Your task to perform on an android device: open app "Microsoft Authenticator" (install if not already installed), go to login, and select forgot password Image 0: 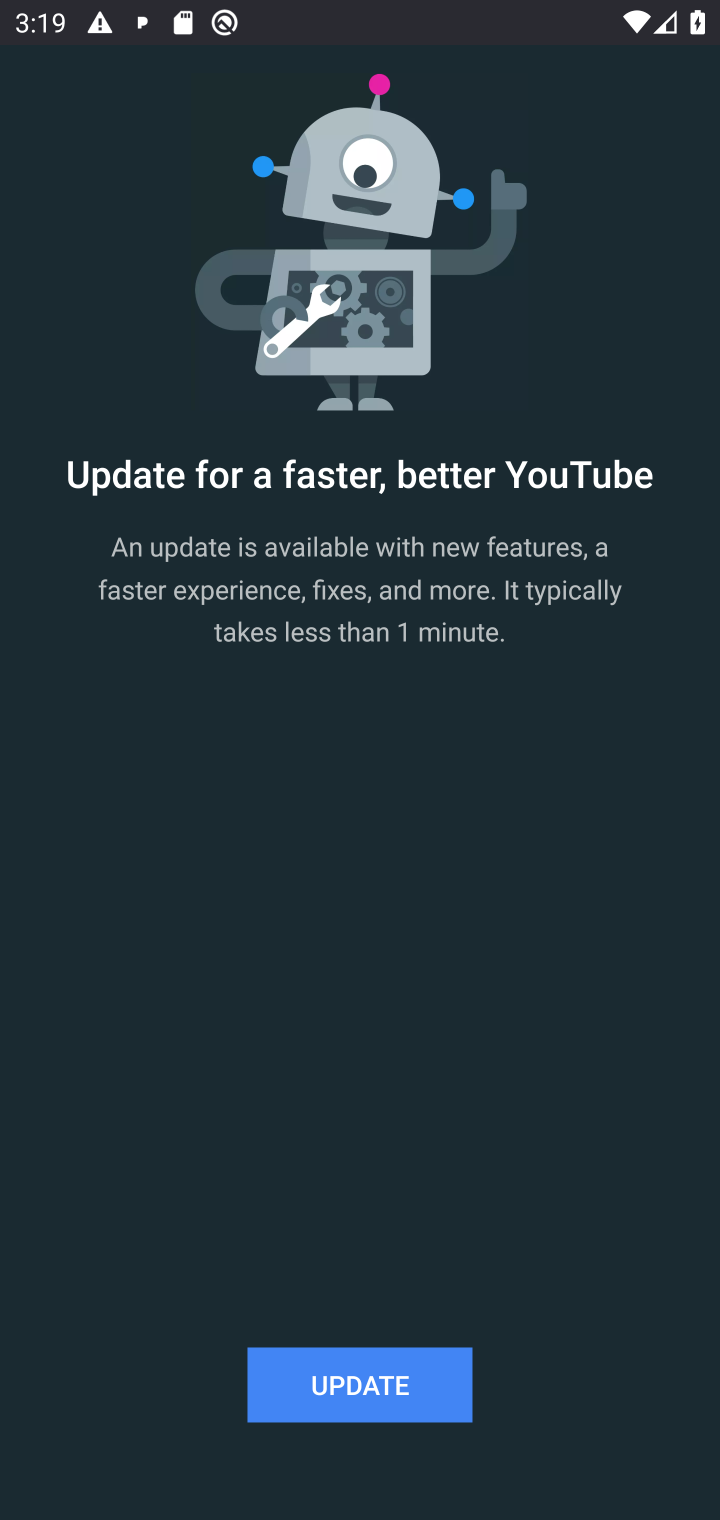
Step 0: press back button
Your task to perform on an android device: open app "Microsoft Authenticator" (install if not already installed), go to login, and select forgot password Image 1: 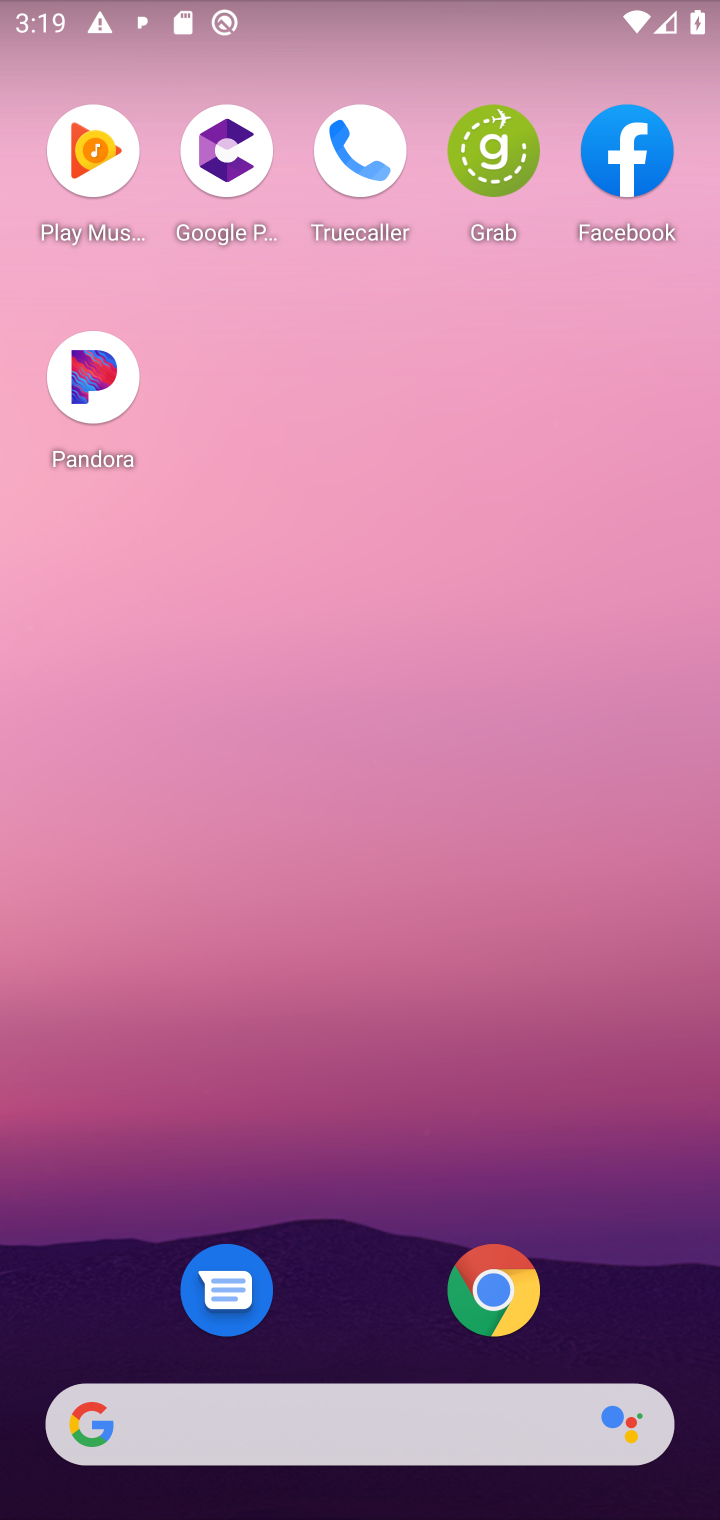
Step 1: drag from (368, 1379) to (294, 151)
Your task to perform on an android device: open app "Microsoft Authenticator" (install if not already installed), go to login, and select forgot password Image 2: 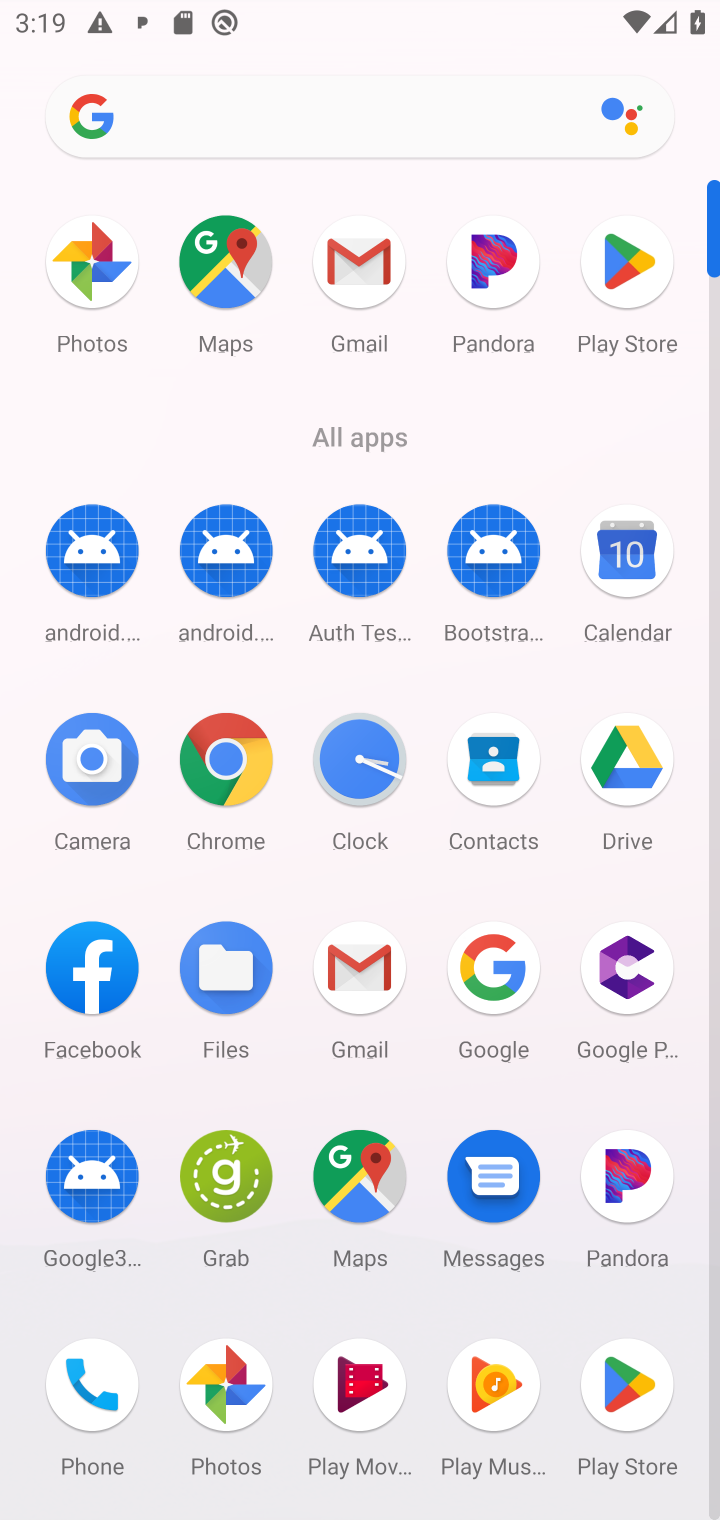
Step 2: click (640, 278)
Your task to perform on an android device: open app "Microsoft Authenticator" (install if not already installed), go to login, and select forgot password Image 3: 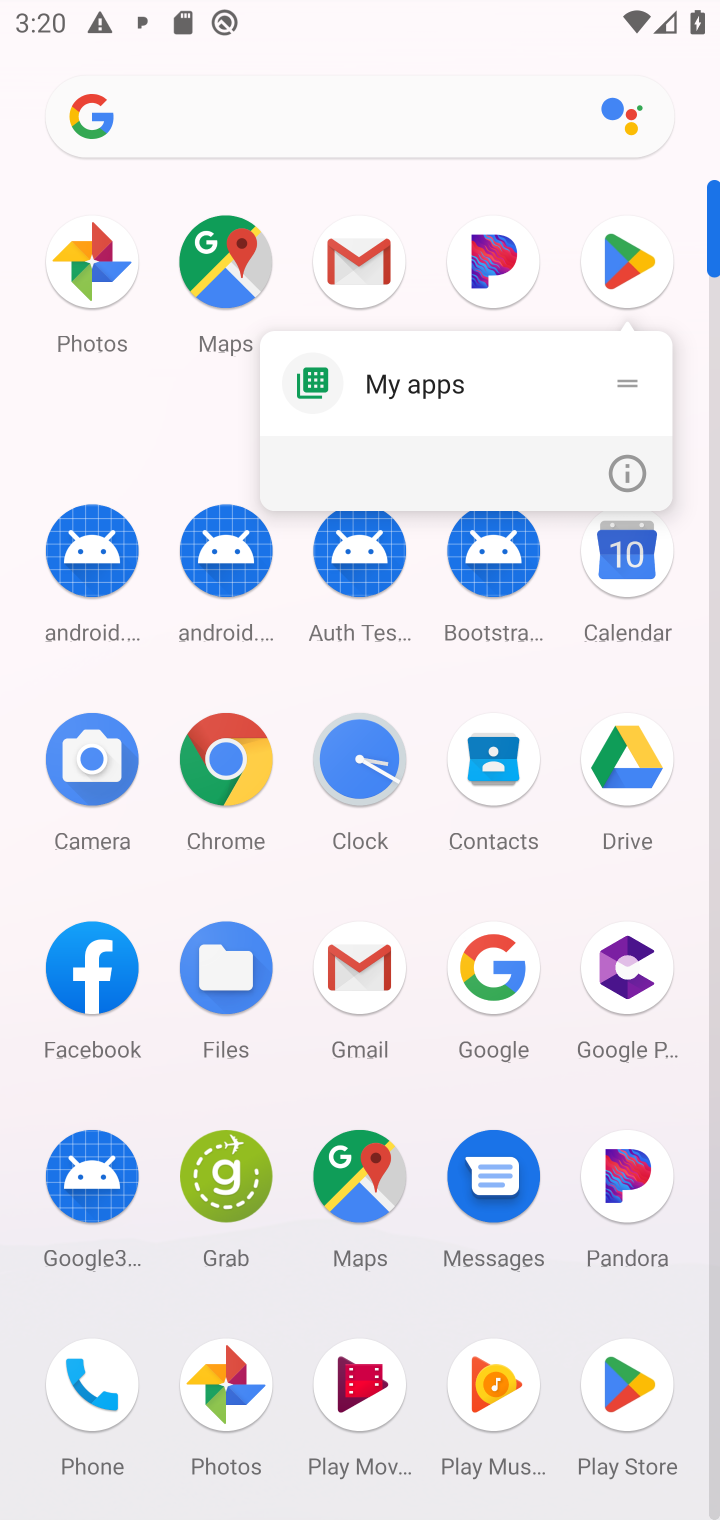
Step 3: click (619, 231)
Your task to perform on an android device: open app "Microsoft Authenticator" (install if not already installed), go to login, and select forgot password Image 4: 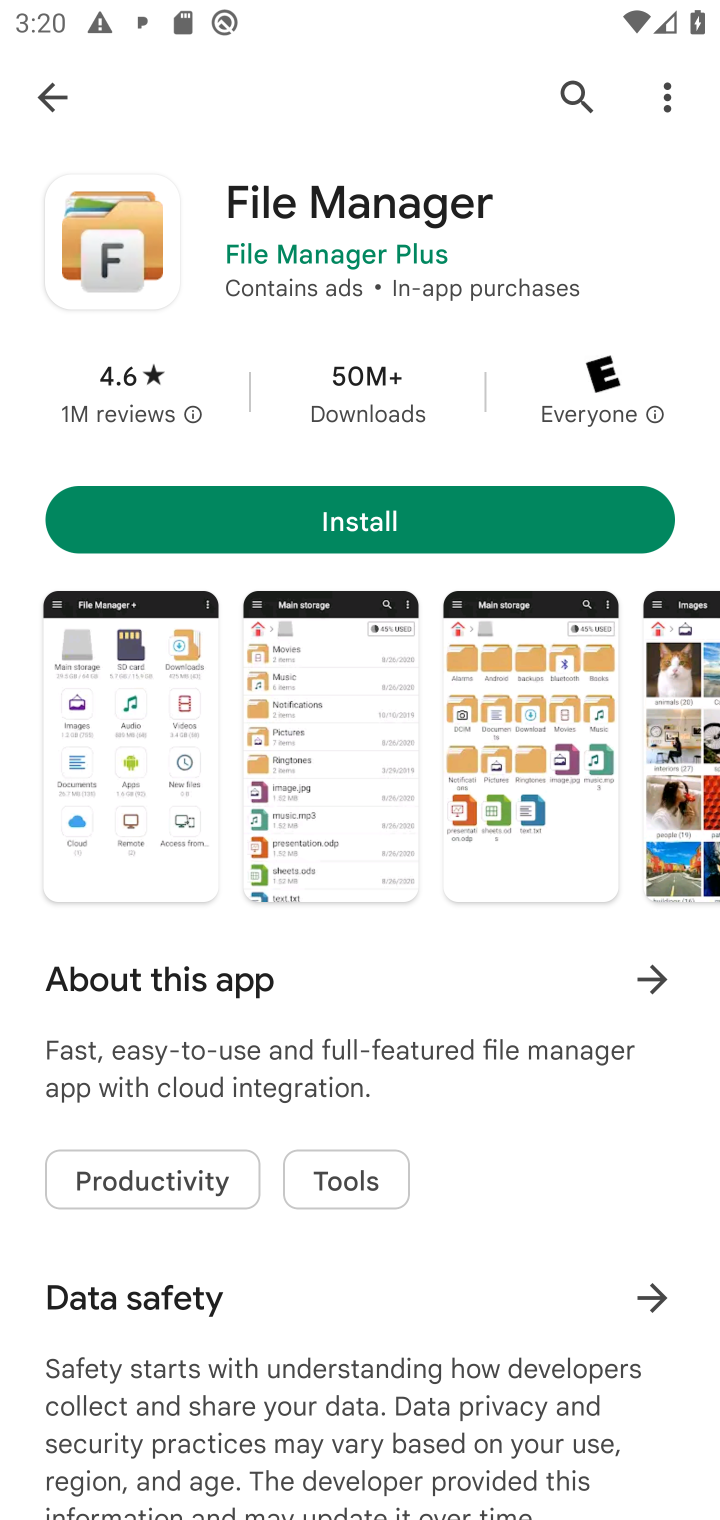
Step 4: click (579, 119)
Your task to perform on an android device: open app "Microsoft Authenticator" (install if not already installed), go to login, and select forgot password Image 5: 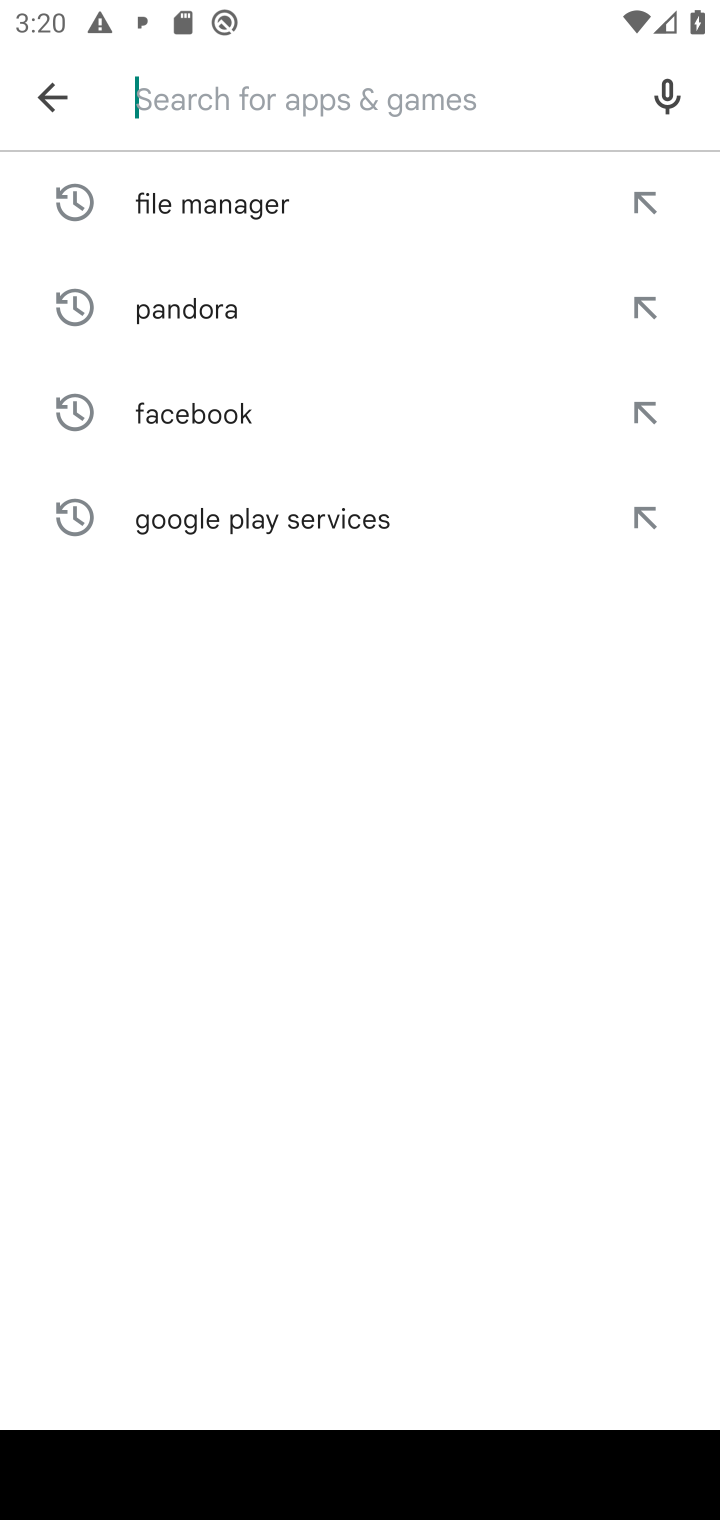
Step 5: type "Microsoft Authenticator"
Your task to perform on an android device: open app "Microsoft Authenticator" (install if not already installed), go to login, and select forgot password Image 6: 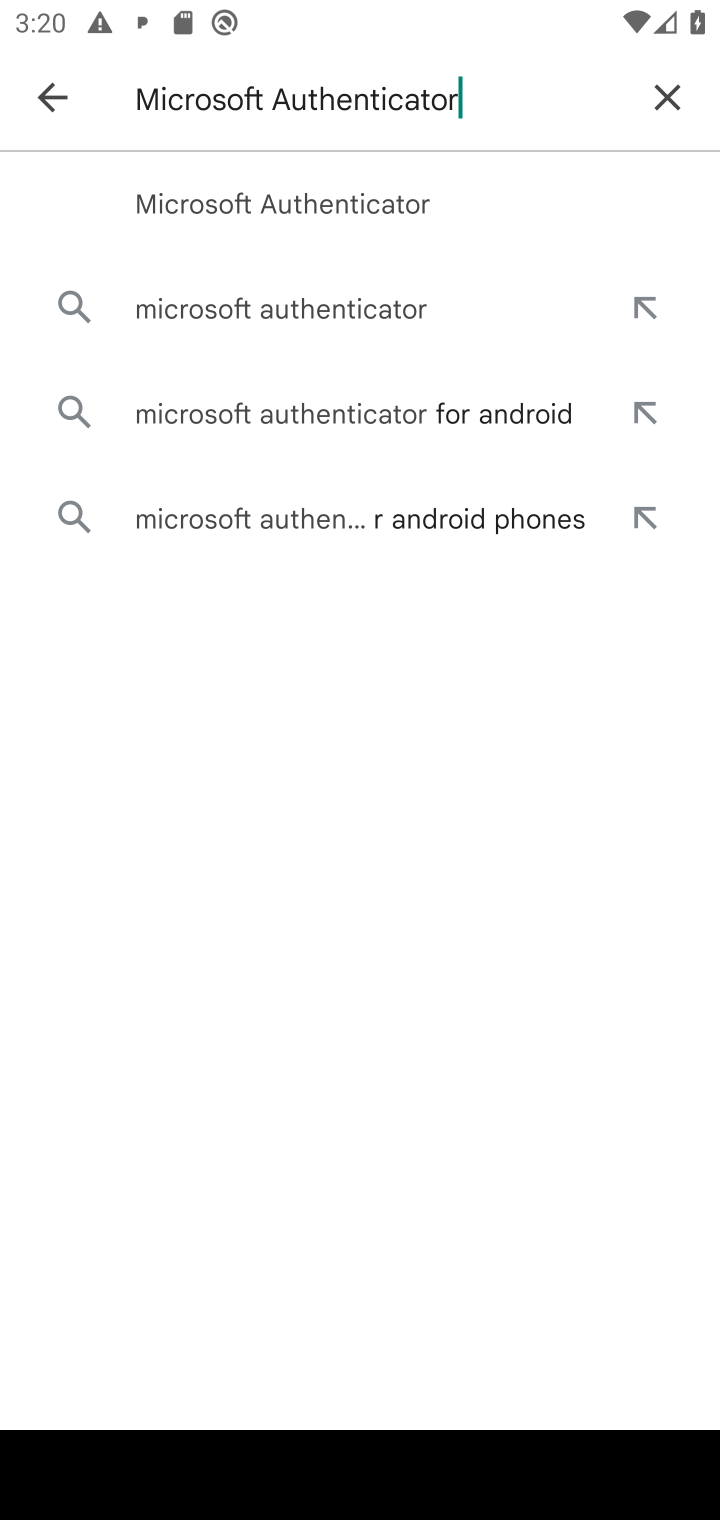
Step 6: type ""
Your task to perform on an android device: open app "Microsoft Authenticator" (install if not already installed), go to login, and select forgot password Image 7: 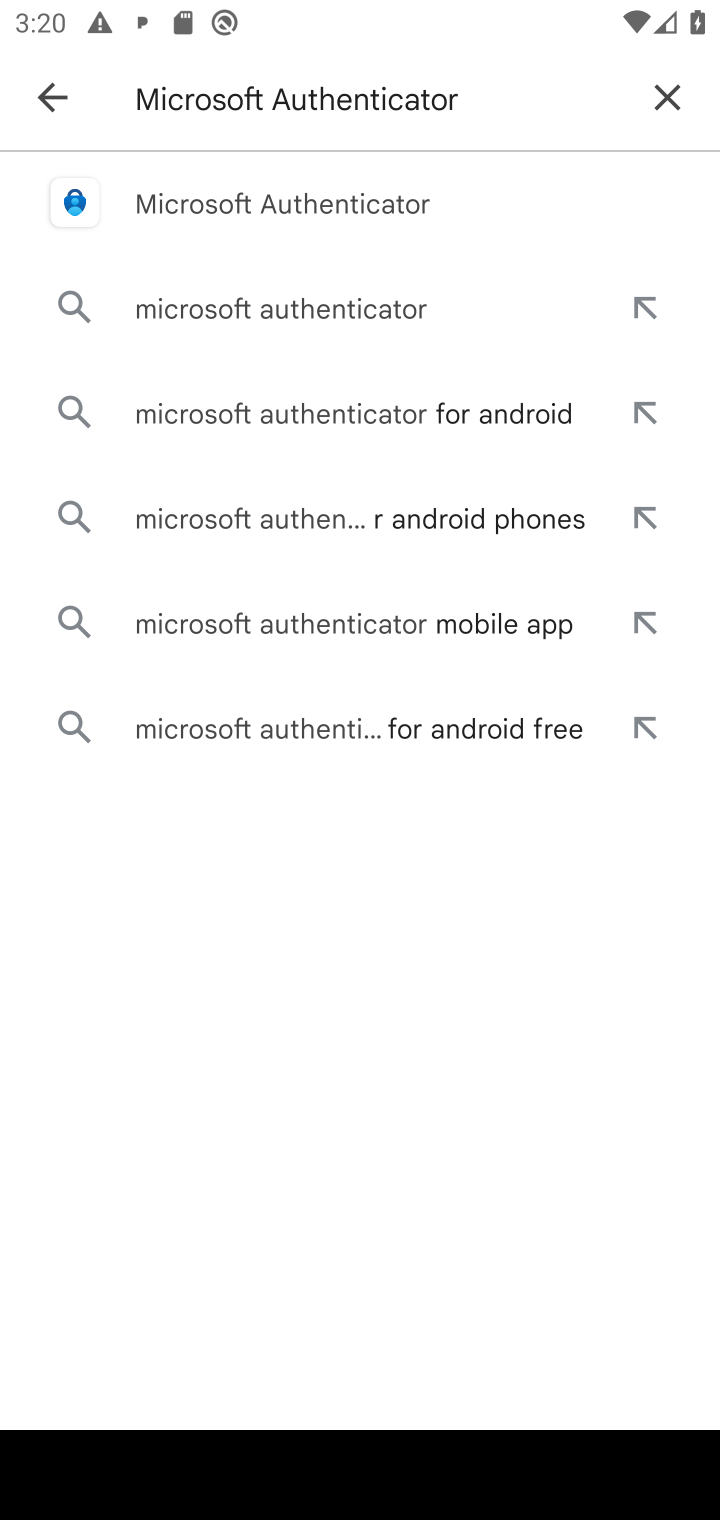
Step 7: click (293, 200)
Your task to perform on an android device: open app "Microsoft Authenticator" (install if not already installed), go to login, and select forgot password Image 8: 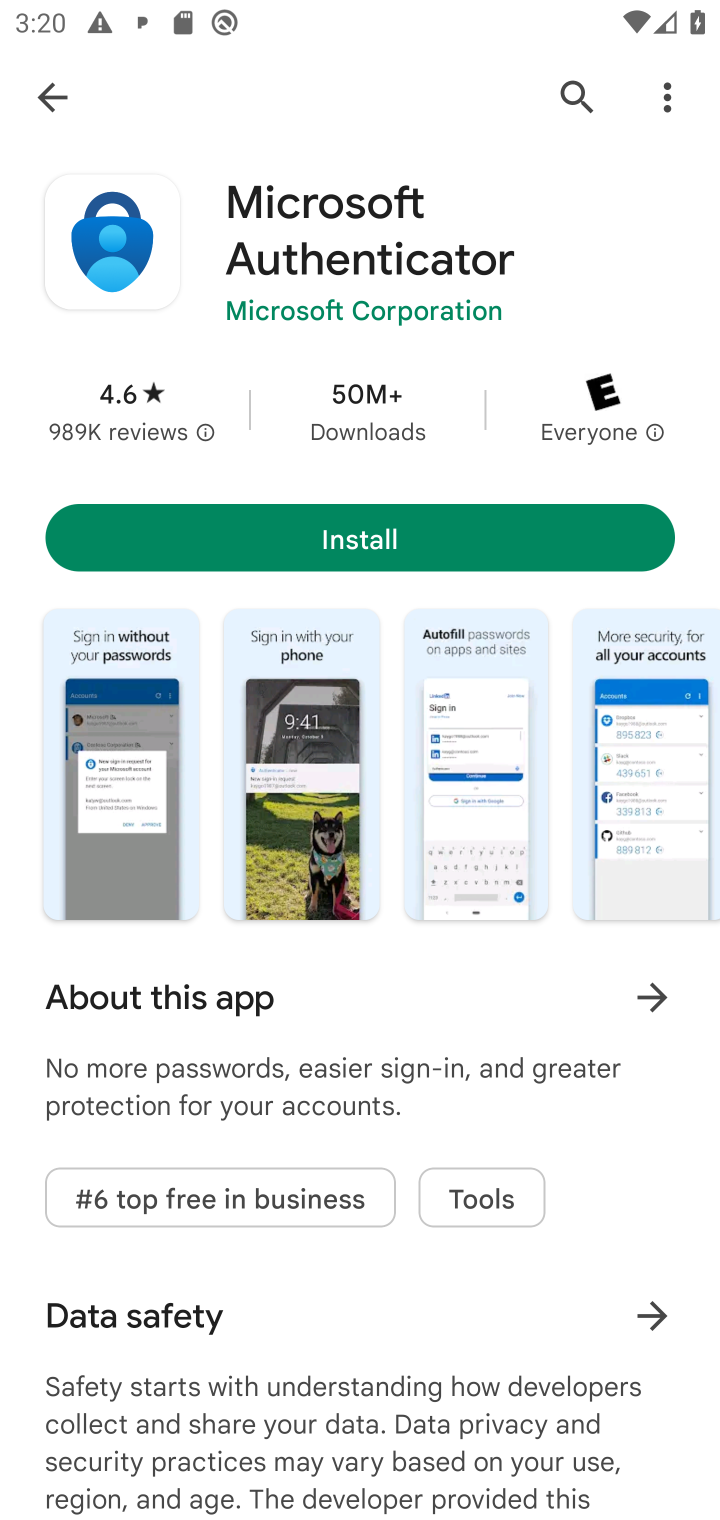
Step 8: click (177, 529)
Your task to perform on an android device: open app "Microsoft Authenticator" (install if not already installed), go to login, and select forgot password Image 9: 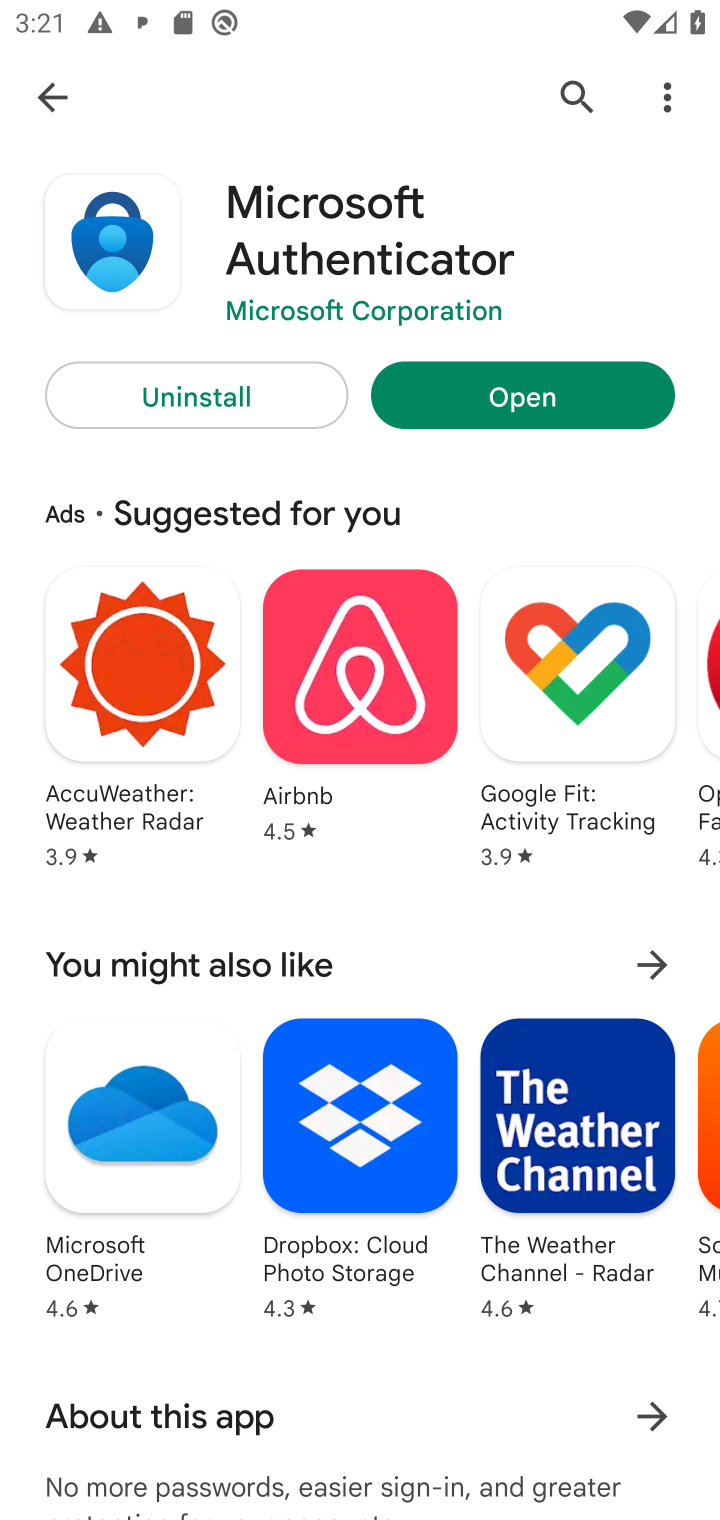
Step 9: click (503, 371)
Your task to perform on an android device: open app "Microsoft Authenticator" (install if not already installed), go to login, and select forgot password Image 10: 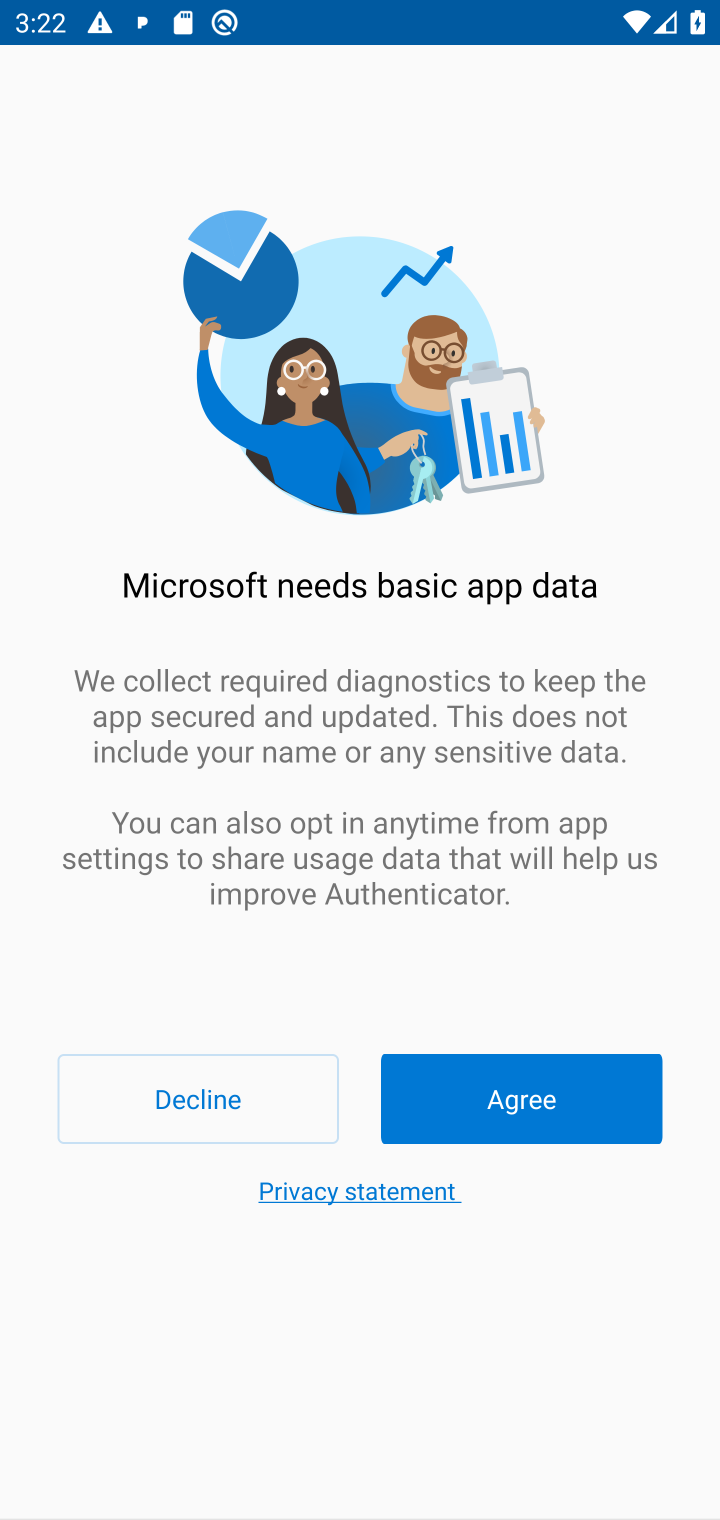
Step 10: click (504, 1110)
Your task to perform on an android device: open app "Microsoft Authenticator" (install if not already installed), go to login, and select forgot password Image 11: 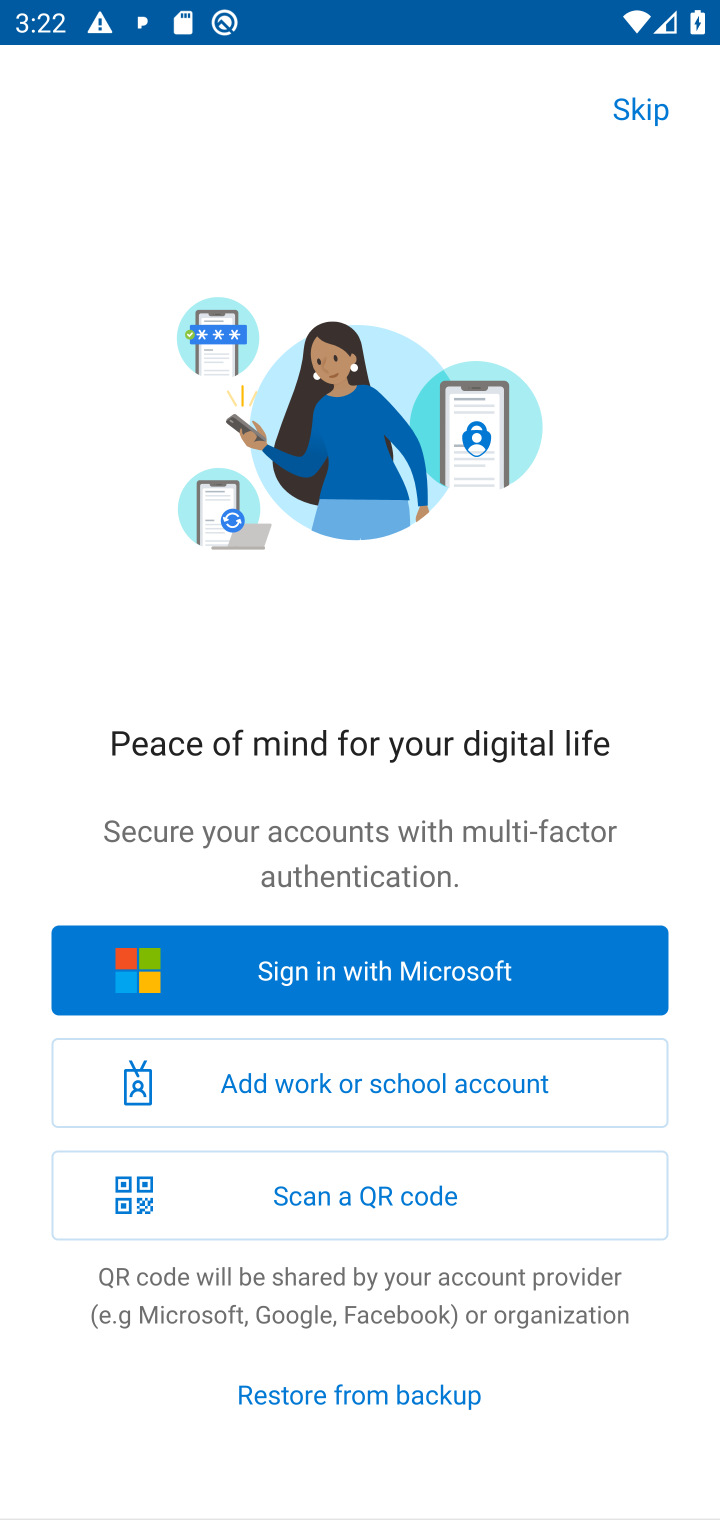
Step 11: click (385, 987)
Your task to perform on an android device: open app "Microsoft Authenticator" (install if not already installed), go to login, and select forgot password Image 12: 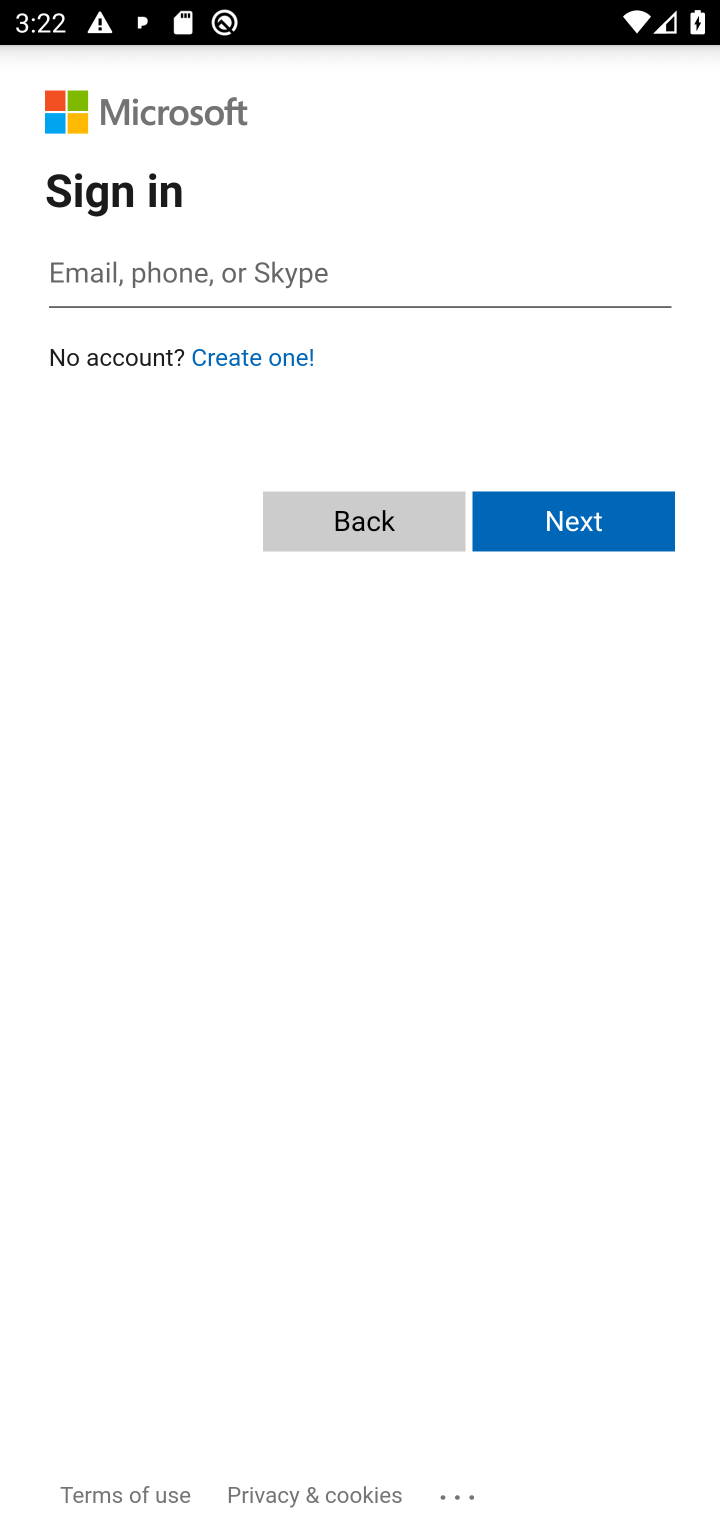
Step 12: click (545, 528)
Your task to perform on an android device: open app "Microsoft Authenticator" (install if not already installed), go to login, and select forgot password Image 13: 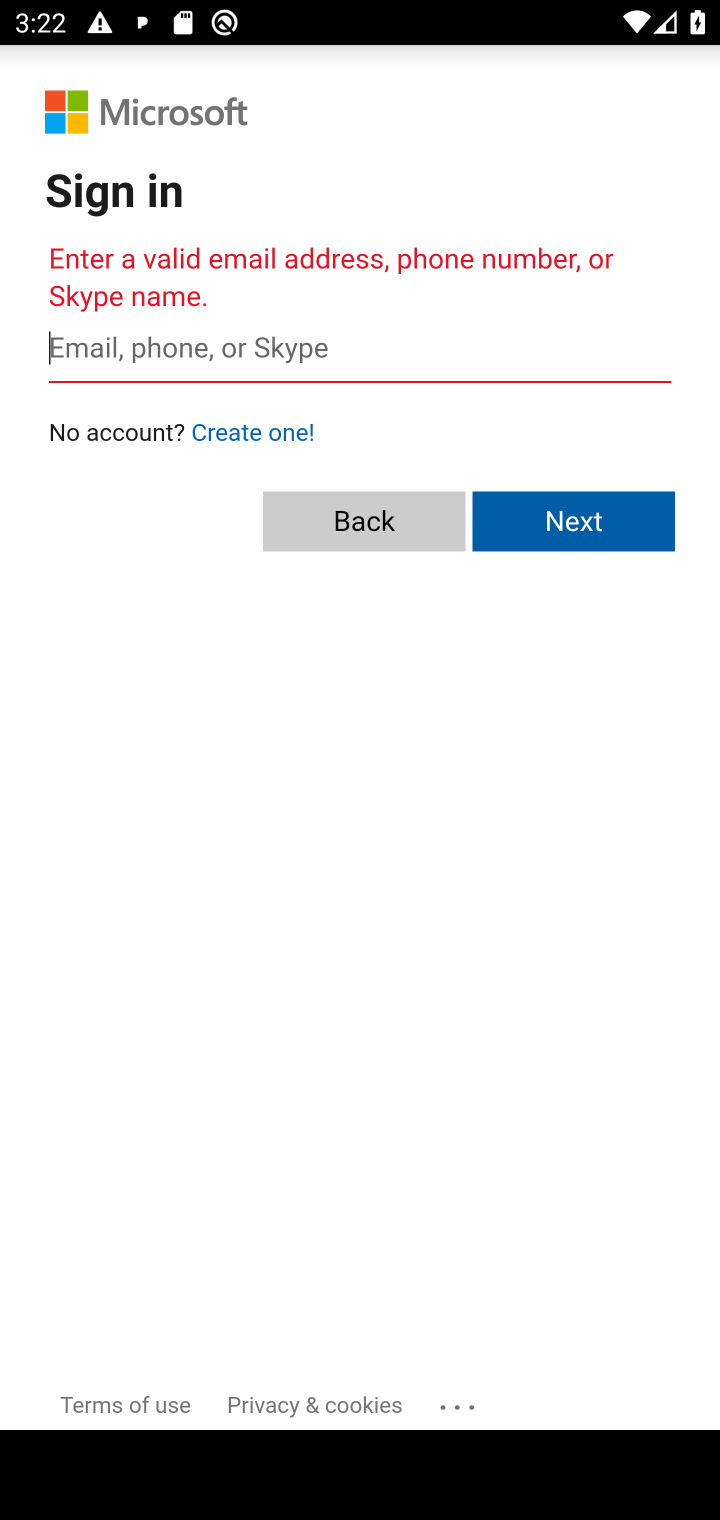
Step 13: task complete